Your task to perform on an android device: Open Google Image 0: 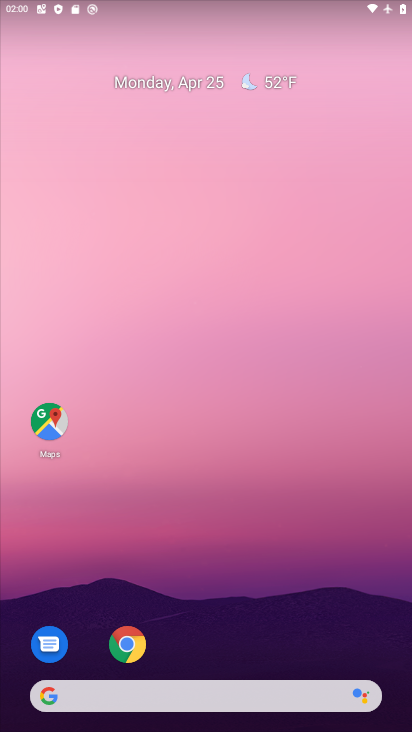
Step 0: click (115, 654)
Your task to perform on an android device: Open Google Image 1: 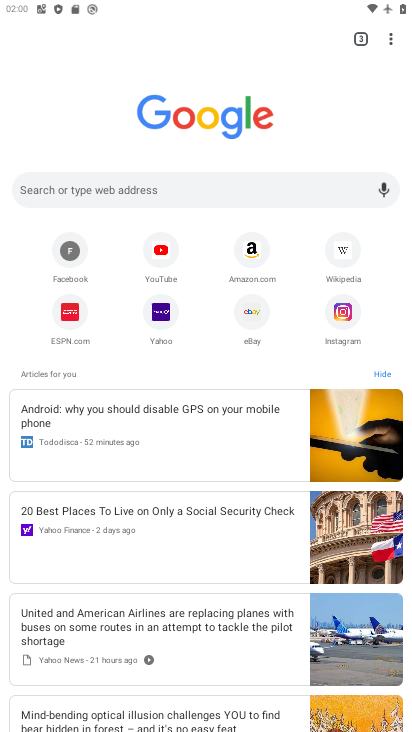
Step 1: task complete